Your task to perform on an android device: Open Chrome and go to settings Image 0: 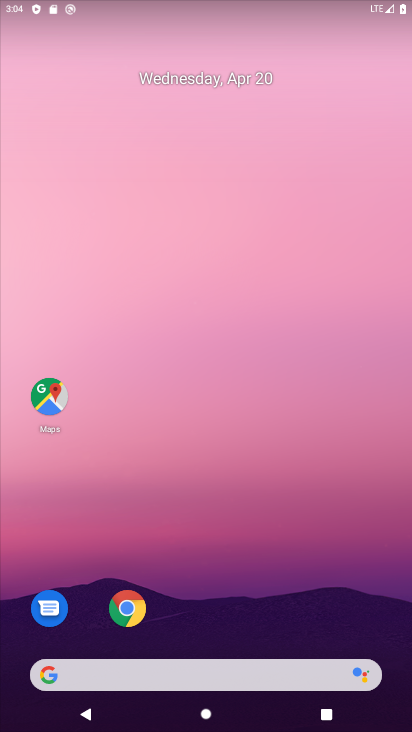
Step 0: click (139, 604)
Your task to perform on an android device: Open Chrome and go to settings Image 1: 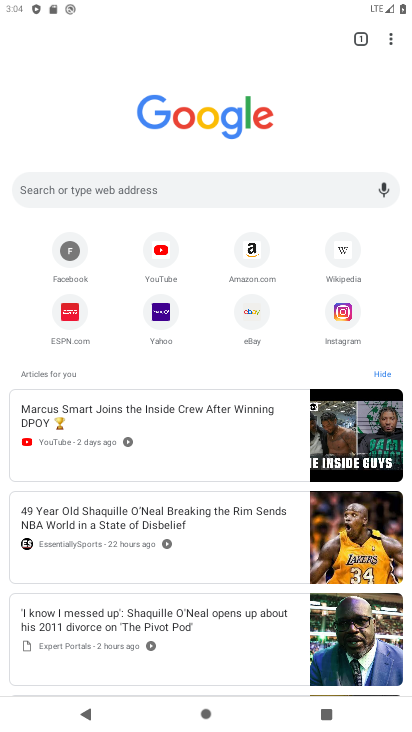
Step 1: click (392, 46)
Your task to perform on an android device: Open Chrome and go to settings Image 2: 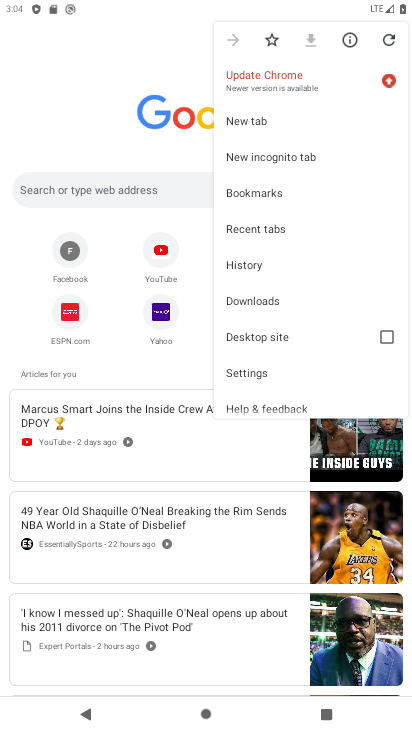
Step 2: click (245, 377)
Your task to perform on an android device: Open Chrome and go to settings Image 3: 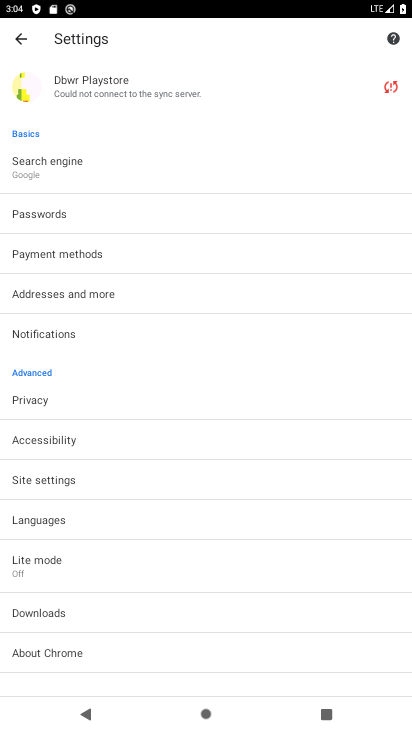
Step 3: task complete